Your task to perform on an android device: turn off location history Image 0: 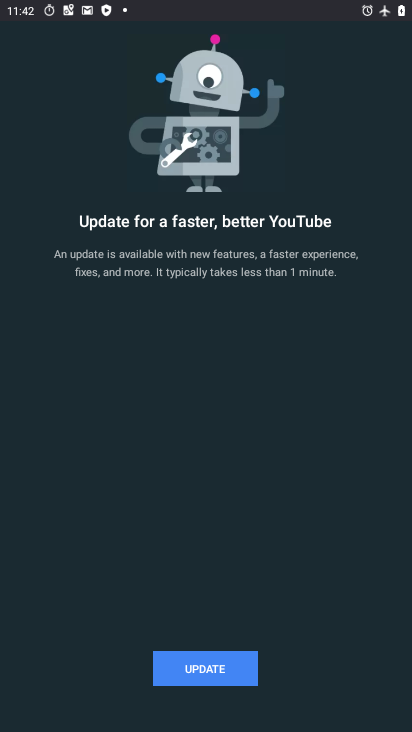
Step 0: press home button
Your task to perform on an android device: turn off location history Image 1: 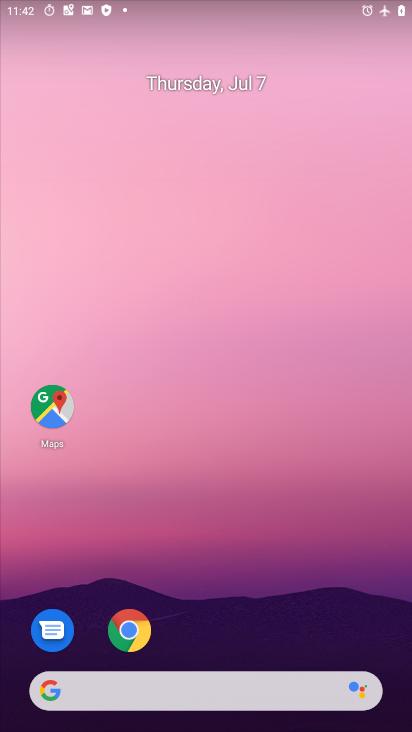
Step 1: drag from (200, 636) to (187, 250)
Your task to perform on an android device: turn off location history Image 2: 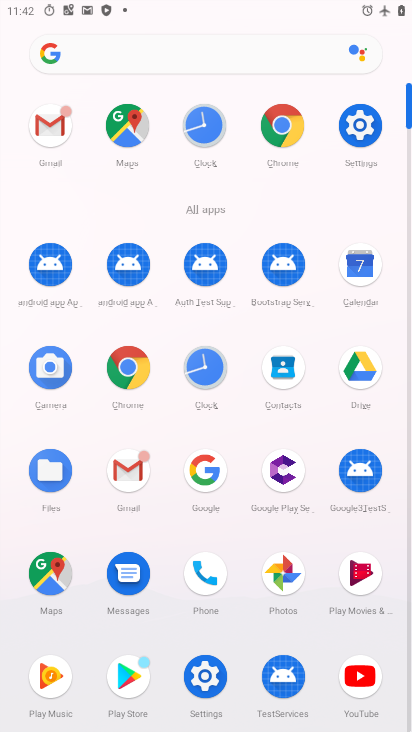
Step 2: click (342, 120)
Your task to perform on an android device: turn off location history Image 3: 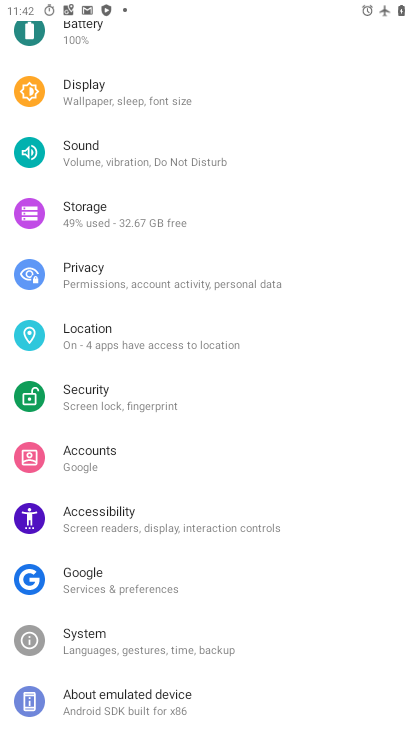
Step 3: click (103, 354)
Your task to perform on an android device: turn off location history Image 4: 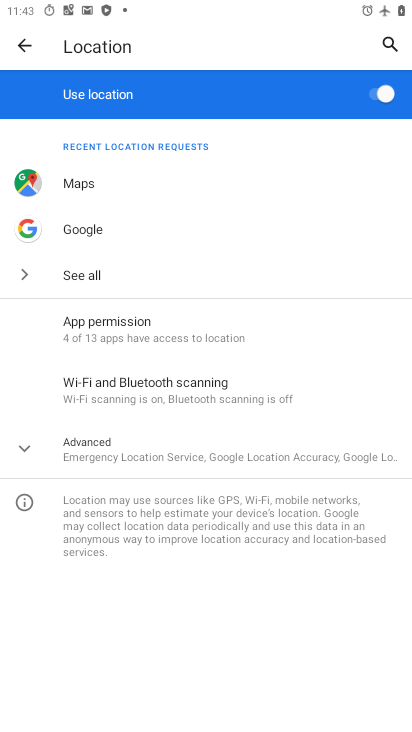
Step 4: click (152, 464)
Your task to perform on an android device: turn off location history Image 5: 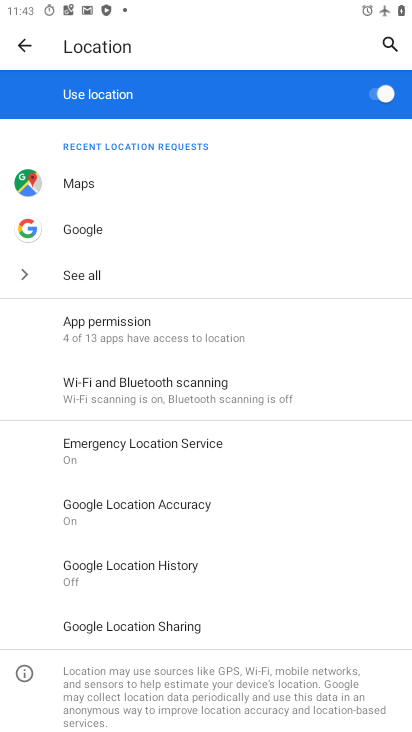
Step 5: click (179, 580)
Your task to perform on an android device: turn off location history Image 6: 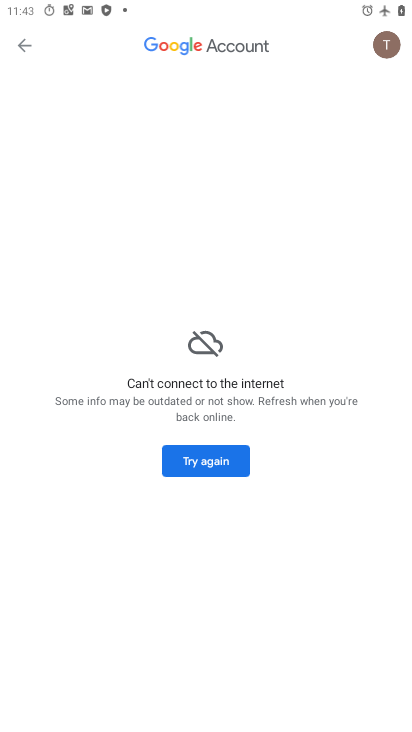
Step 6: task complete